Your task to perform on an android device: Search for vegetarian restaurants on Maps Image 0: 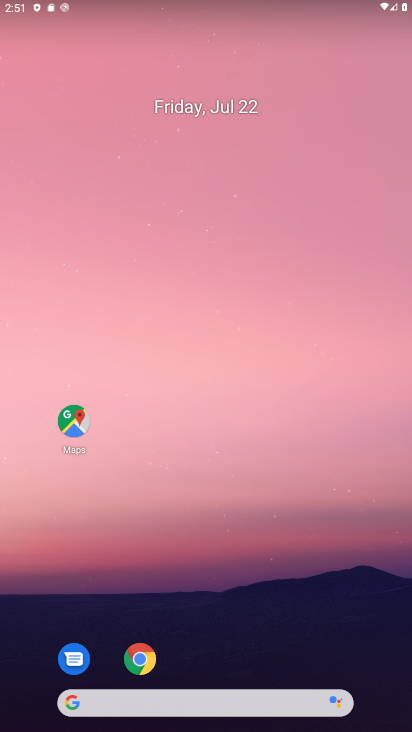
Step 0: task complete